Your task to perform on an android device: toggle pop-ups in chrome Image 0: 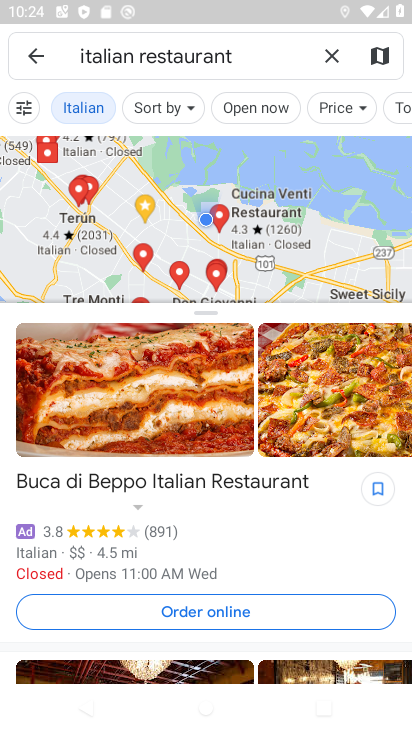
Step 0: press home button
Your task to perform on an android device: toggle pop-ups in chrome Image 1: 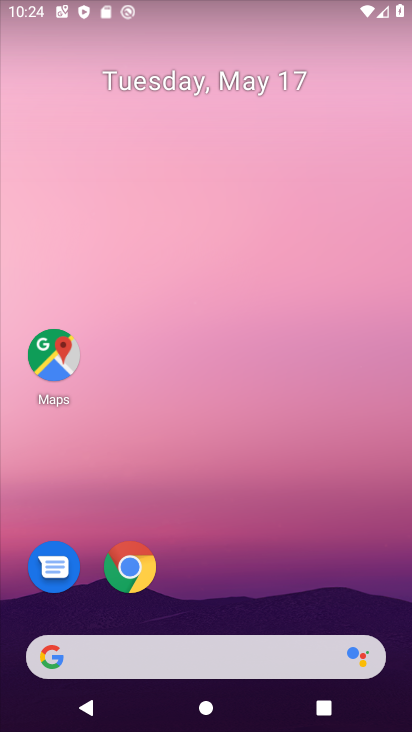
Step 1: click (140, 574)
Your task to perform on an android device: toggle pop-ups in chrome Image 2: 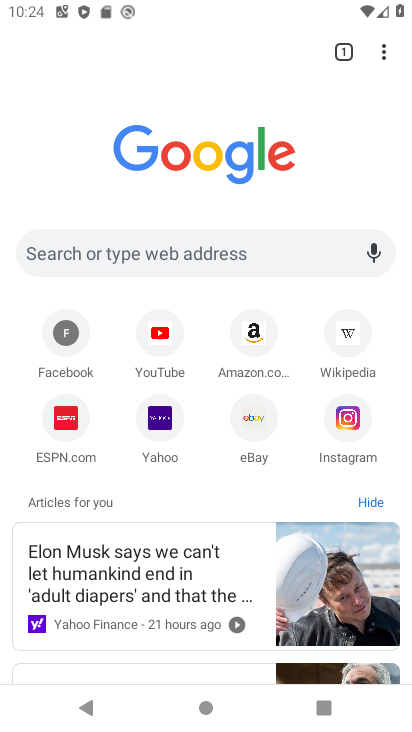
Step 2: click (385, 52)
Your task to perform on an android device: toggle pop-ups in chrome Image 3: 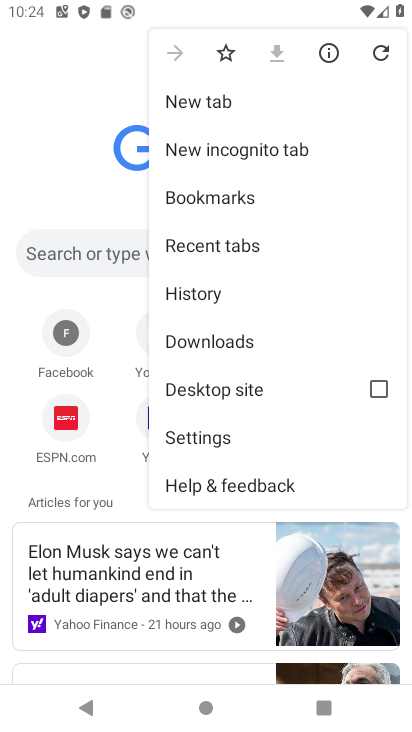
Step 3: click (235, 431)
Your task to perform on an android device: toggle pop-ups in chrome Image 4: 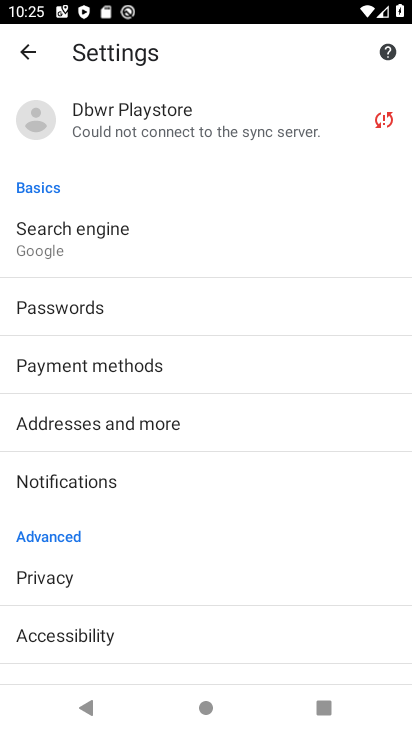
Step 4: drag from (175, 638) to (155, 314)
Your task to perform on an android device: toggle pop-ups in chrome Image 5: 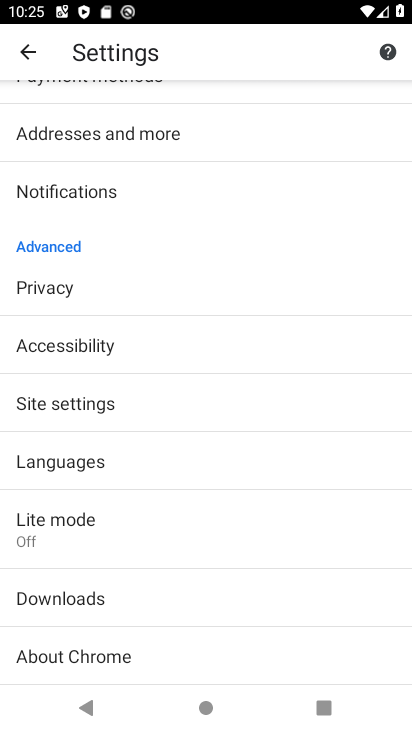
Step 5: click (111, 400)
Your task to perform on an android device: toggle pop-ups in chrome Image 6: 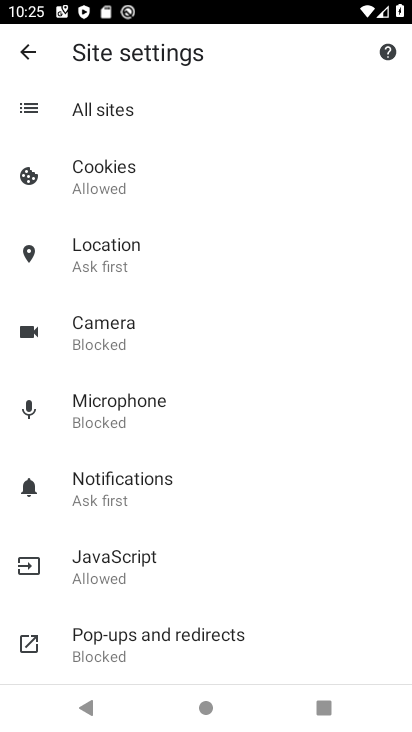
Step 6: click (119, 631)
Your task to perform on an android device: toggle pop-ups in chrome Image 7: 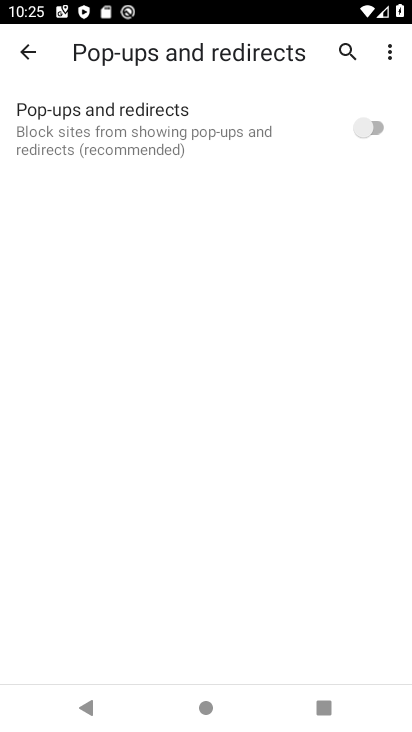
Step 7: click (351, 126)
Your task to perform on an android device: toggle pop-ups in chrome Image 8: 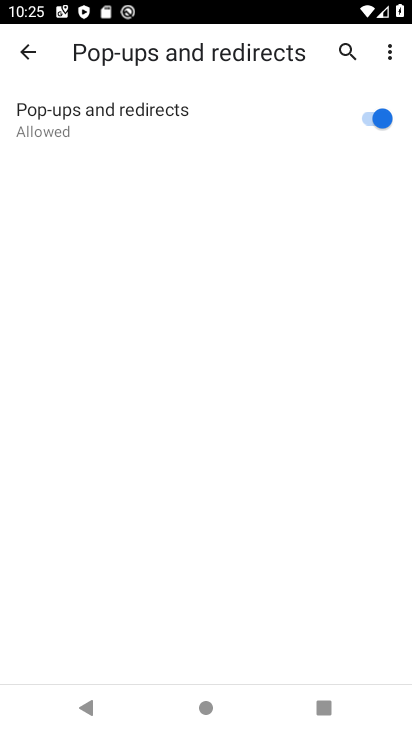
Step 8: task complete